Your task to perform on an android device: change keyboard looks Image 0: 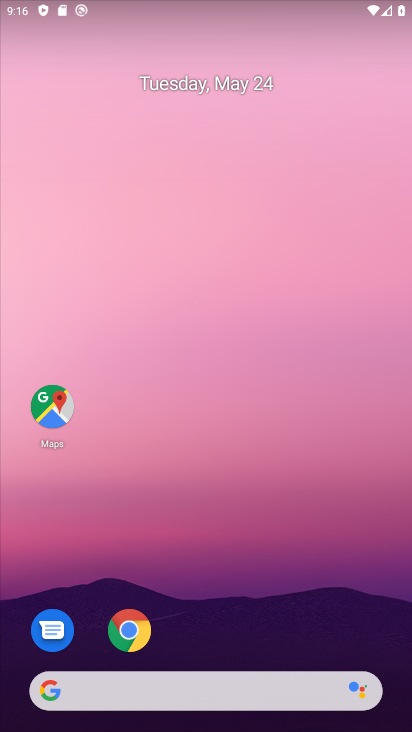
Step 0: press home button
Your task to perform on an android device: change keyboard looks Image 1: 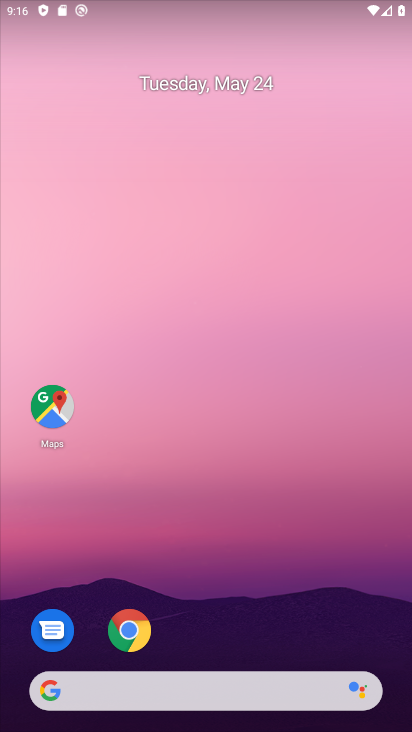
Step 1: drag from (218, 653) to (242, 5)
Your task to perform on an android device: change keyboard looks Image 2: 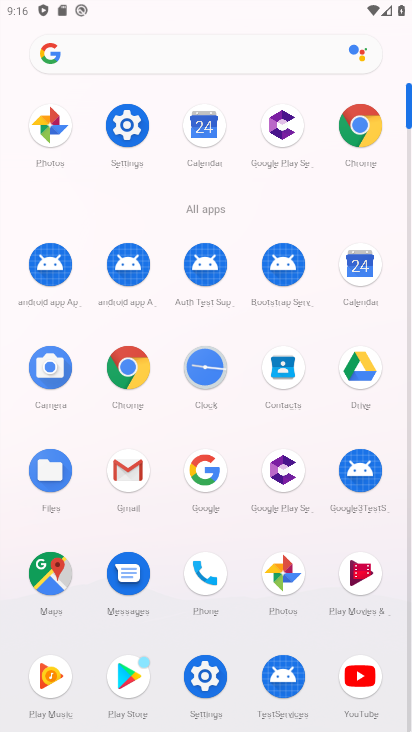
Step 2: click (124, 120)
Your task to perform on an android device: change keyboard looks Image 3: 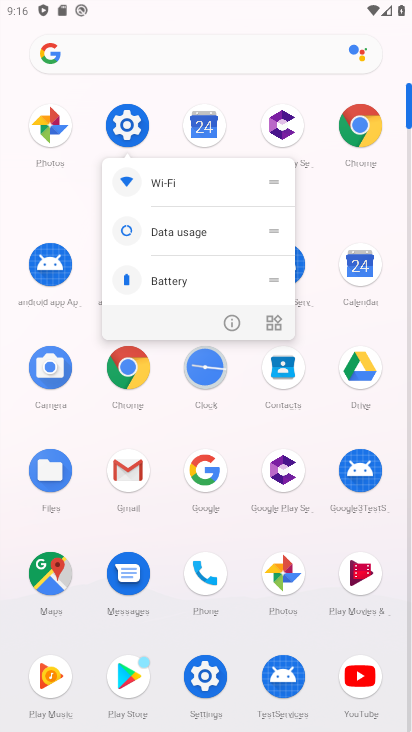
Step 3: click (129, 132)
Your task to perform on an android device: change keyboard looks Image 4: 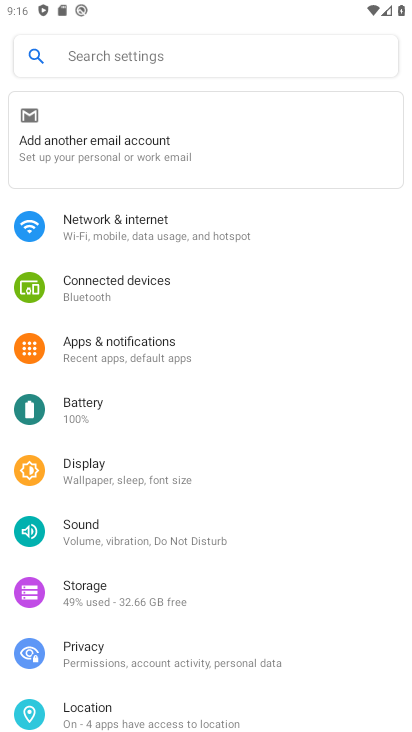
Step 4: drag from (128, 677) to (170, 47)
Your task to perform on an android device: change keyboard looks Image 5: 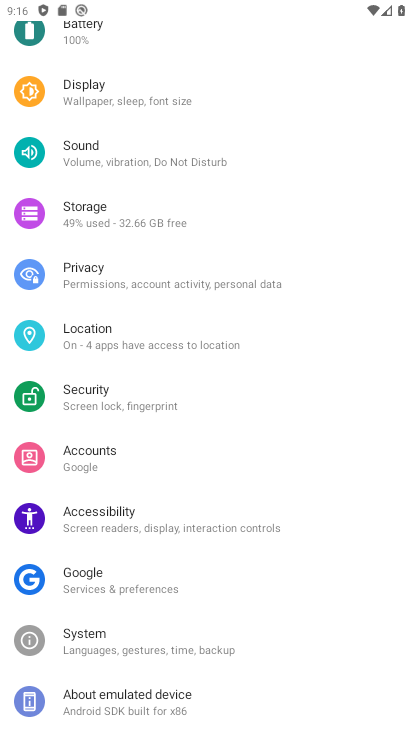
Step 5: click (117, 632)
Your task to perform on an android device: change keyboard looks Image 6: 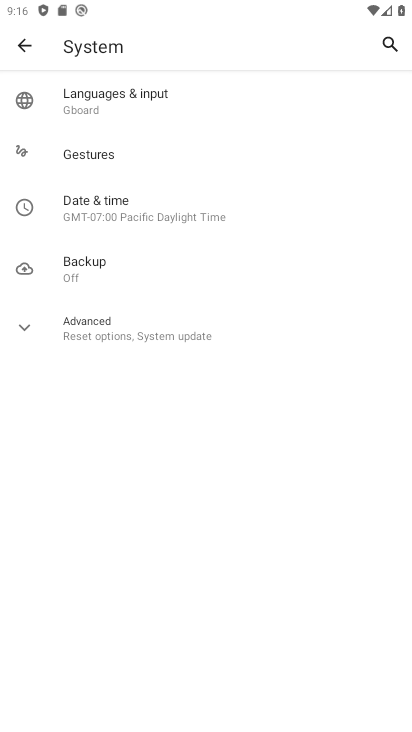
Step 6: click (132, 106)
Your task to perform on an android device: change keyboard looks Image 7: 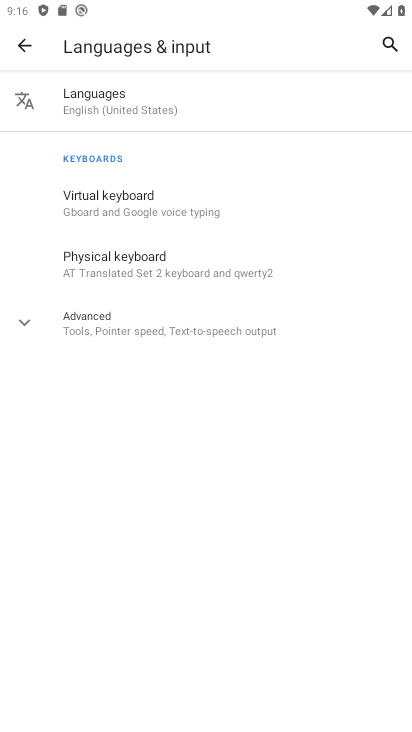
Step 7: click (149, 205)
Your task to perform on an android device: change keyboard looks Image 8: 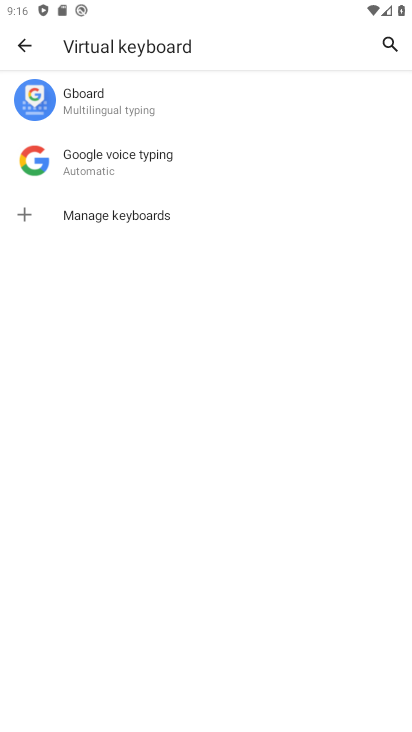
Step 8: click (117, 92)
Your task to perform on an android device: change keyboard looks Image 9: 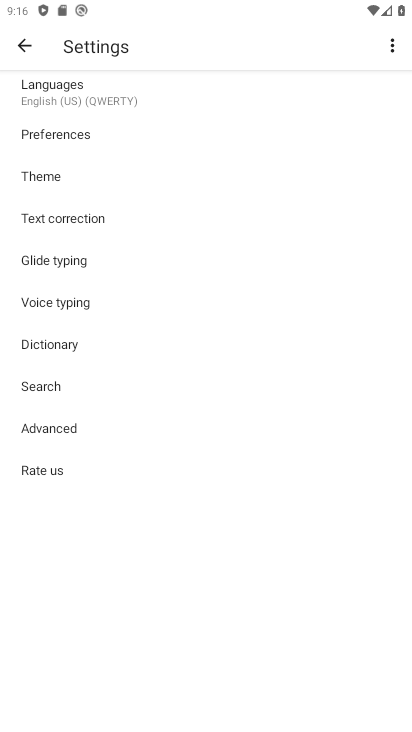
Step 9: click (76, 170)
Your task to perform on an android device: change keyboard looks Image 10: 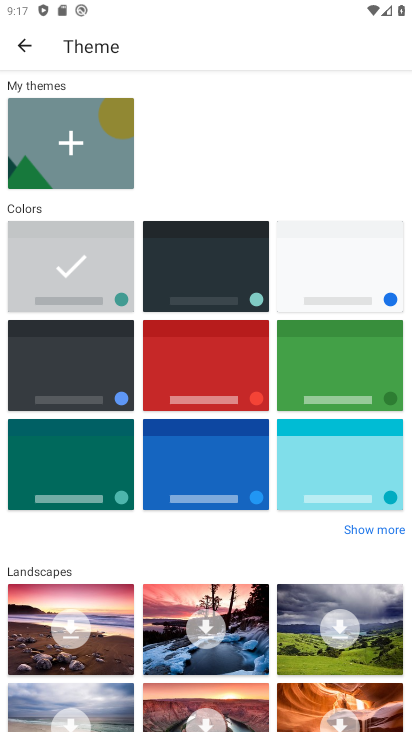
Step 10: click (205, 268)
Your task to perform on an android device: change keyboard looks Image 11: 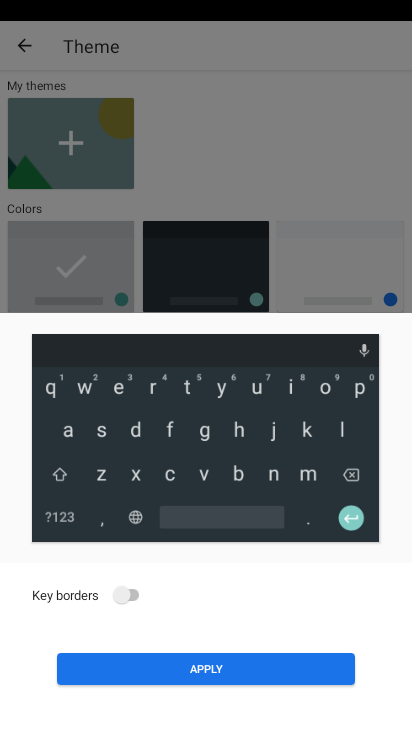
Step 11: click (205, 664)
Your task to perform on an android device: change keyboard looks Image 12: 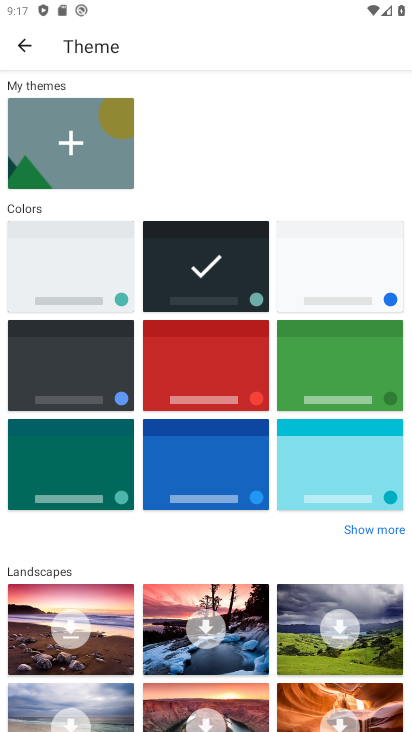
Step 12: task complete